Your task to perform on an android device: Open Google Chrome and click the shortcut for Amazon.com Image 0: 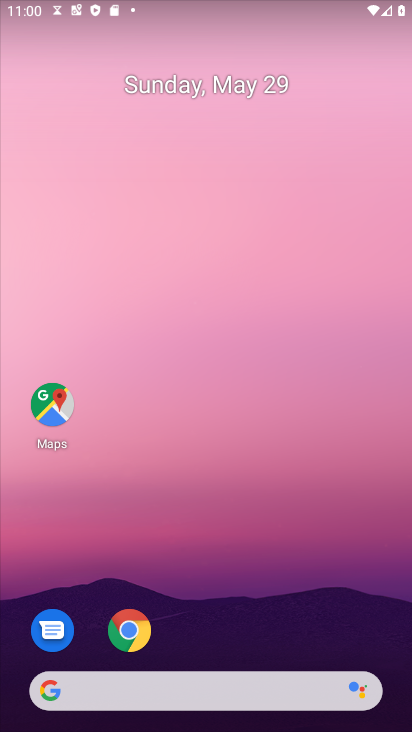
Step 0: click (126, 625)
Your task to perform on an android device: Open Google Chrome and click the shortcut for Amazon.com Image 1: 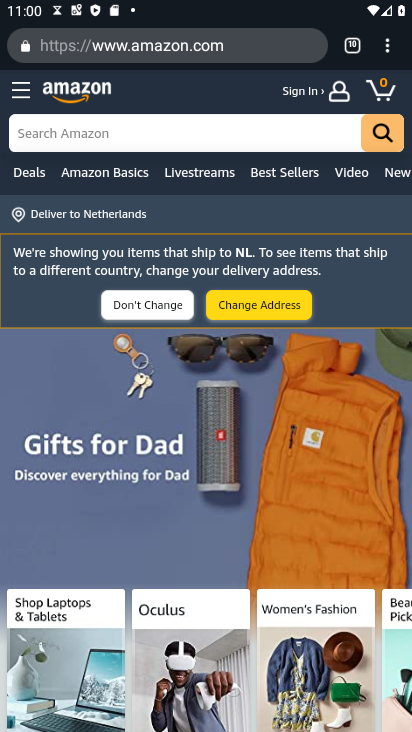
Step 1: task complete